Your task to perform on an android device: turn on the 12-hour format for clock Image 0: 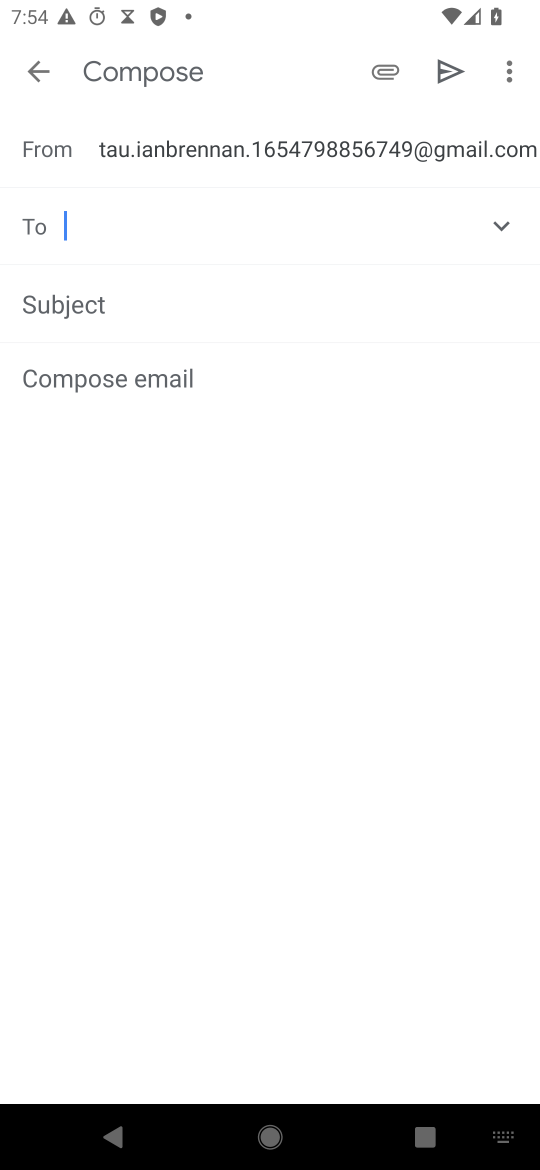
Step 0: press home button
Your task to perform on an android device: turn on the 12-hour format for clock Image 1: 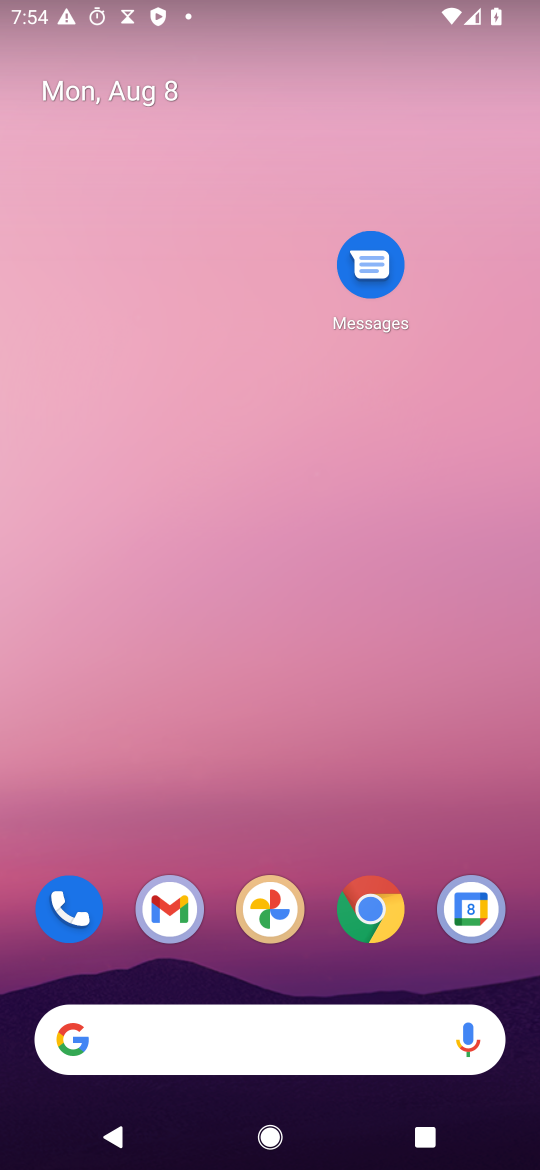
Step 1: drag from (224, 1028) to (332, 164)
Your task to perform on an android device: turn on the 12-hour format for clock Image 2: 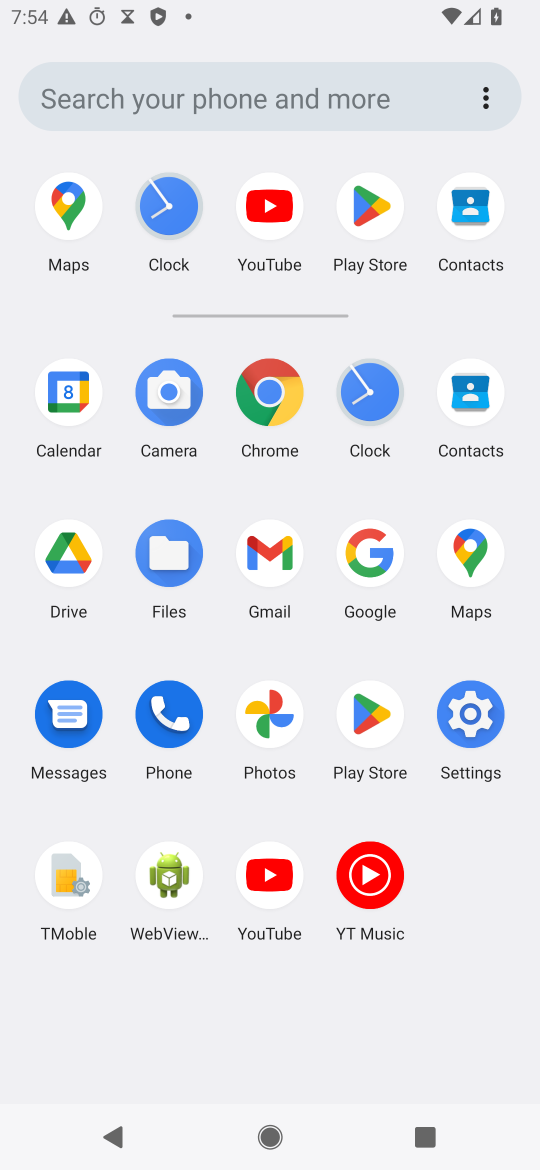
Step 2: click (379, 396)
Your task to perform on an android device: turn on the 12-hour format for clock Image 3: 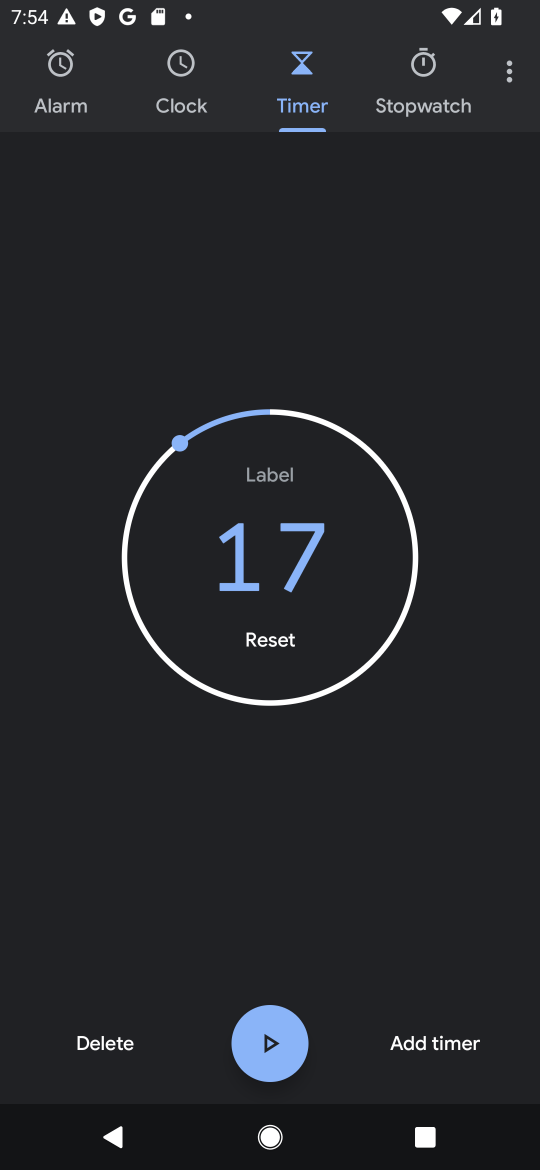
Step 3: click (505, 74)
Your task to perform on an android device: turn on the 12-hour format for clock Image 4: 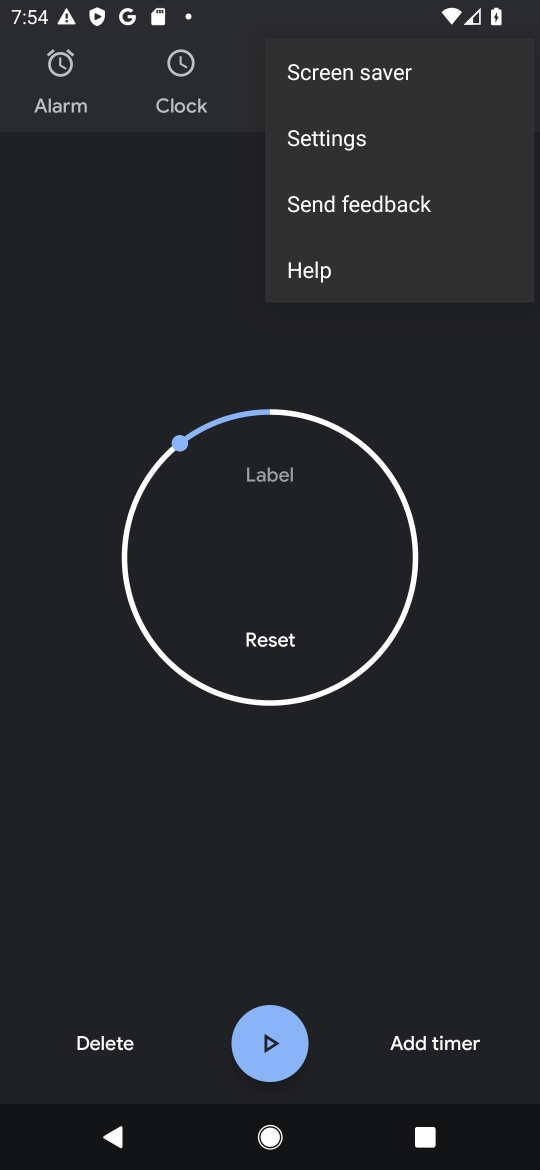
Step 4: click (327, 139)
Your task to perform on an android device: turn on the 12-hour format for clock Image 5: 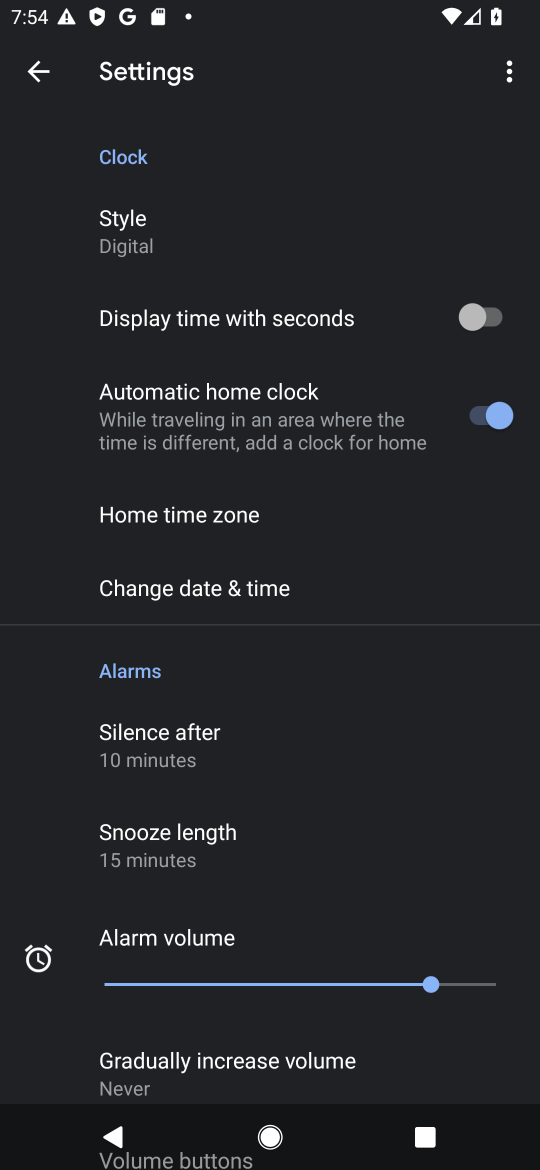
Step 5: click (238, 599)
Your task to perform on an android device: turn on the 12-hour format for clock Image 6: 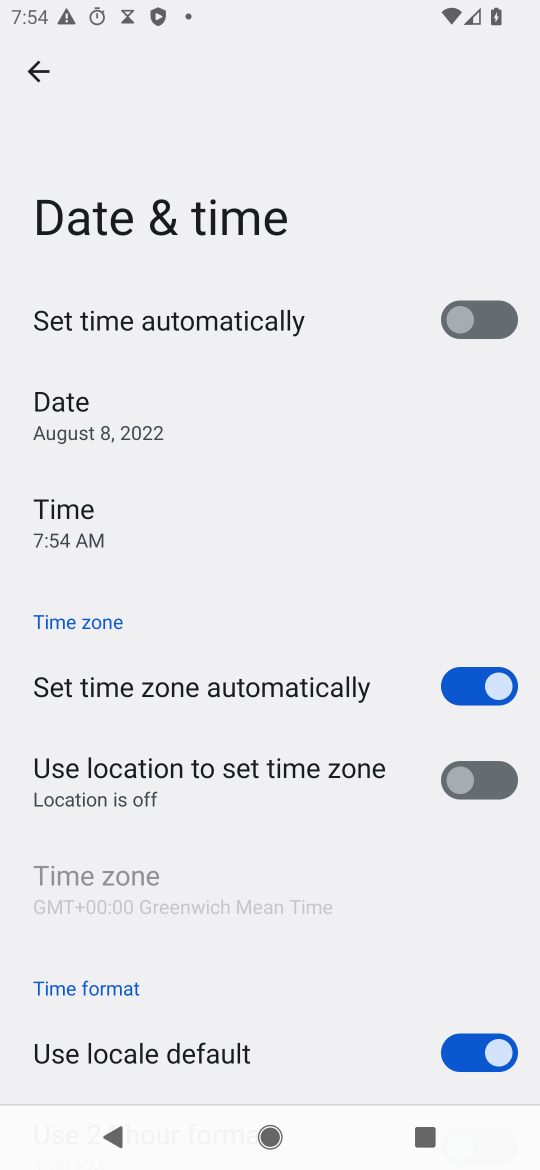
Step 6: task complete